Your task to perform on an android device: What's the weather going to be tomorrow? Image 0: 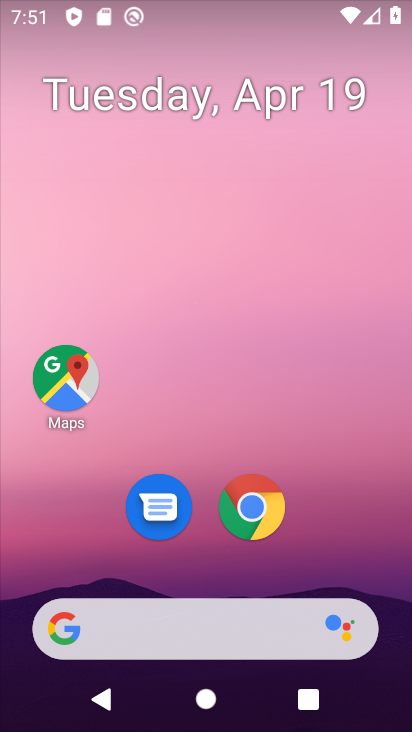
Step 0: click (252, 504)
Your task to perform on an android device: What's the weather going to be tomorrow? Image 1: 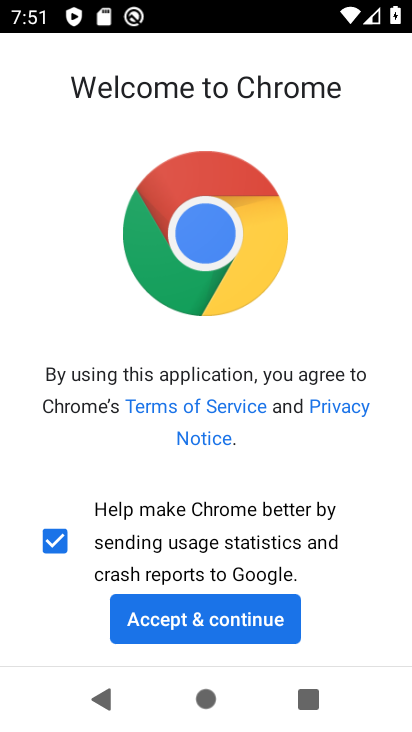
Step 1: click (173, 611)
Your task to perform on an android device: What's the weather going to be tomorrow? Image 2: 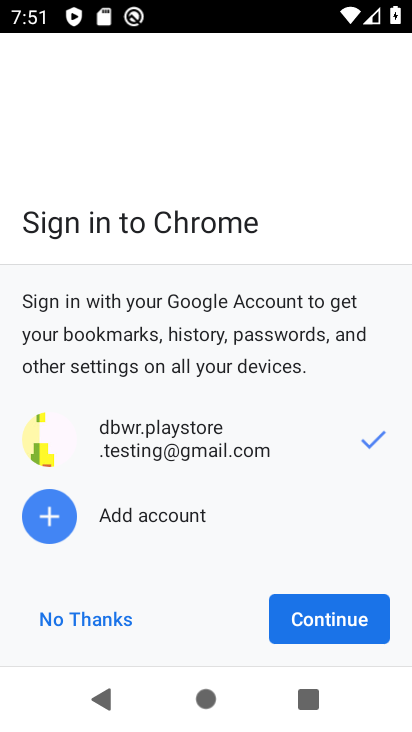
Step 2: click (333, 623)
Your task to perform on an android device: What's the weather going to be tomorrow? Image 3: 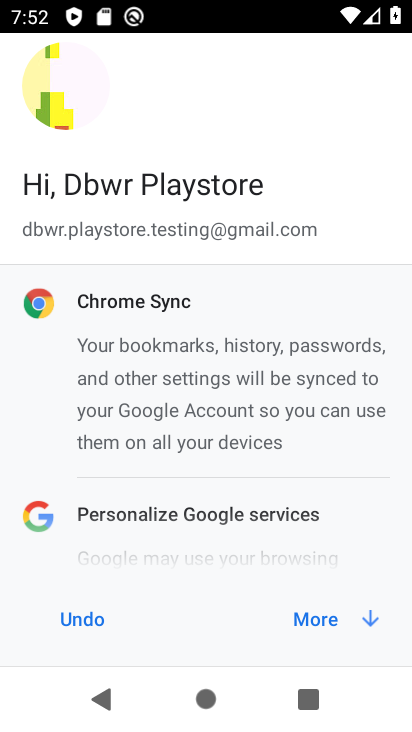
Step 3: click (333, 621)
Your task to perform on an android device: What's the weather going to be tomorrow? Image 4: 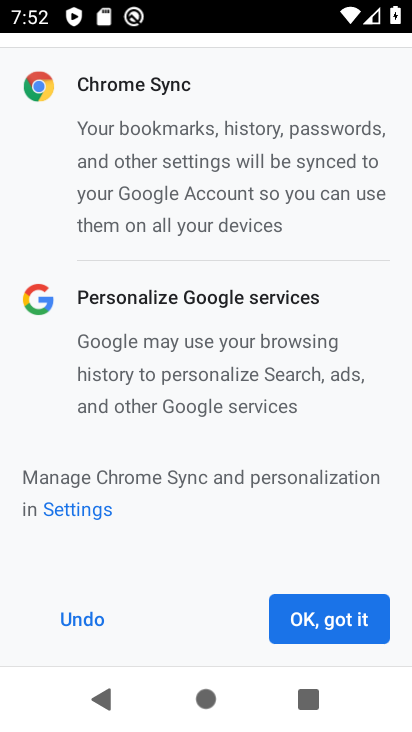
Step 4: click (333, 621)
Your task to perform on an android device: What's the weather going to be tomorrow? Image 5: 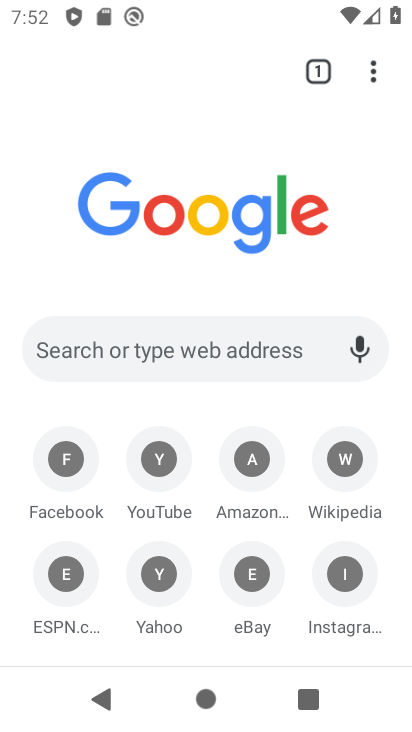
Step 5: click (130, 354)
Your task to perform on an android device: What's the weather going to be tomorrow? Image 6: 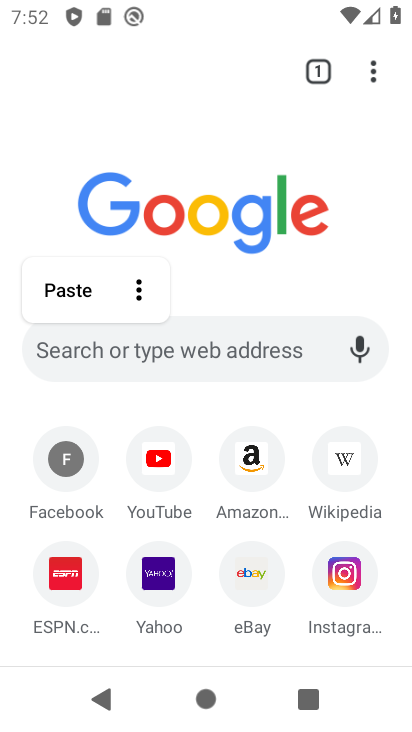
Step 6: click (261, 348)
Your task to perform on an android device: What's the weather going to be tomorrow? Image 7: 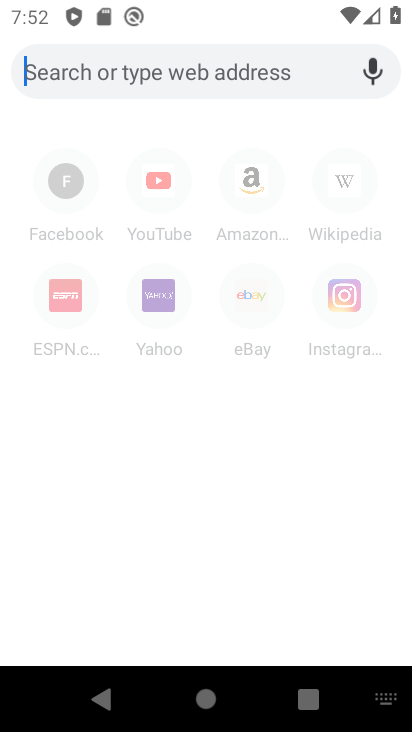
Step 7: type "whats the weather going to be tomorrow"
Your task to perform on an android device: What's the weather going to be tomorrow? Image 8: 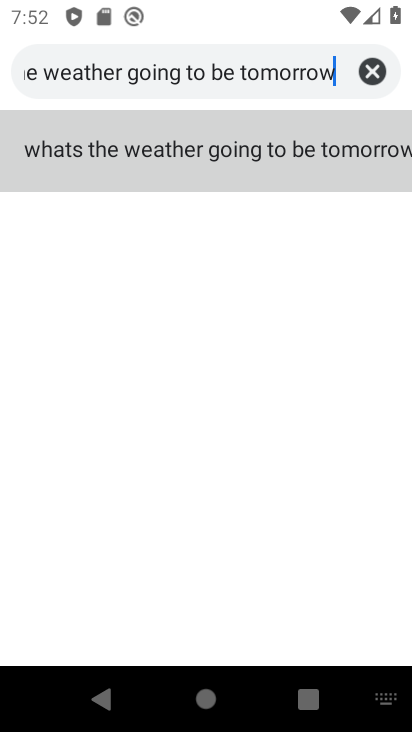
Step 8: click (232, 147)
Your task to perform on an android device: What's the weather going to be tomorrow? Image 9: 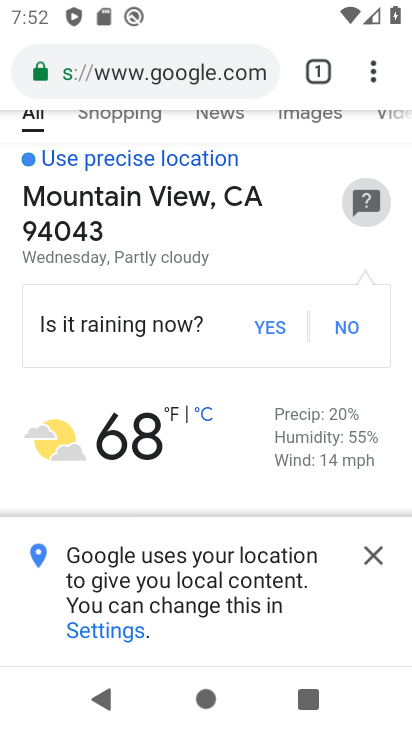
Step 9: task complete